Your task to perform on an android device: Go to Maps Image 0: 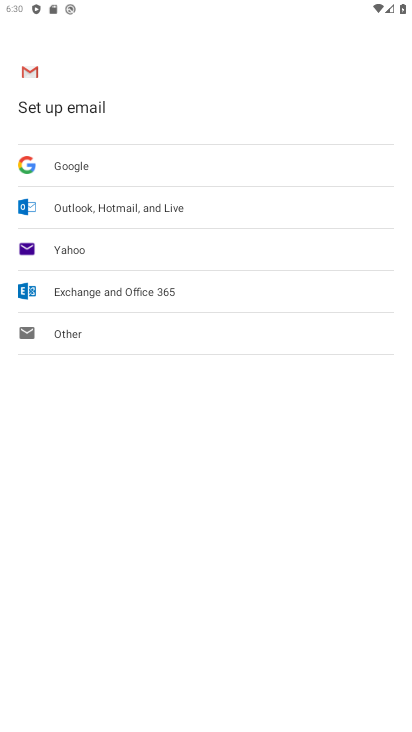
Step 0: press back button
Your task to perform on an android device: Go to Maps Image 1: 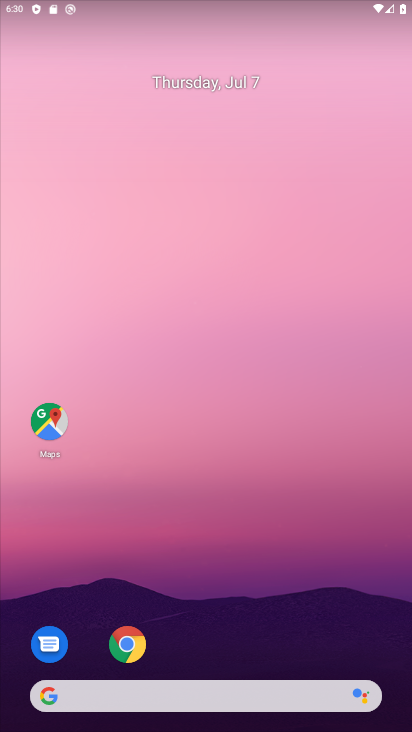
Step 1: click (37, 429)
Your task to perform on an android device: Go to Maps Image 2: 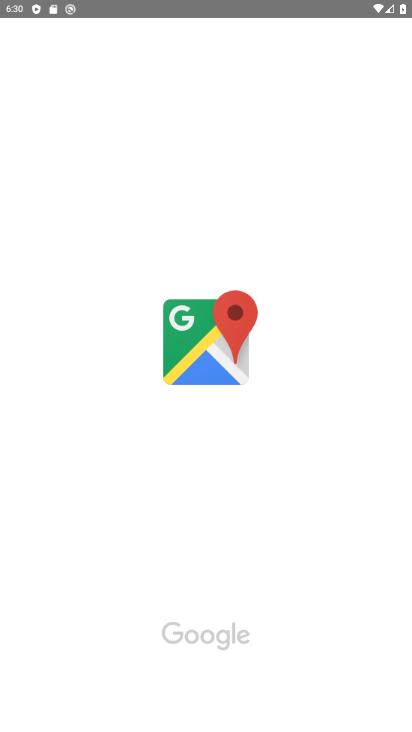
Step 2: task complete